Your task to perform on an android device: Go to calendar. Show me events next week Image 0: 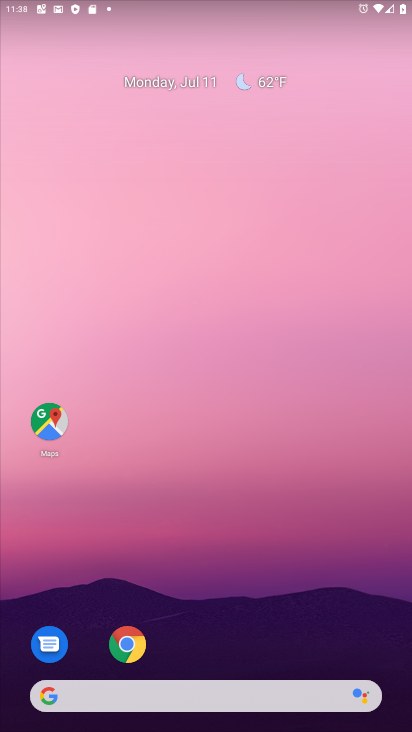
Step 0: drag from (232, 685) to (194, 46)
Your task to perform on an android device: Go to calendar. Show me events next week Image 1: 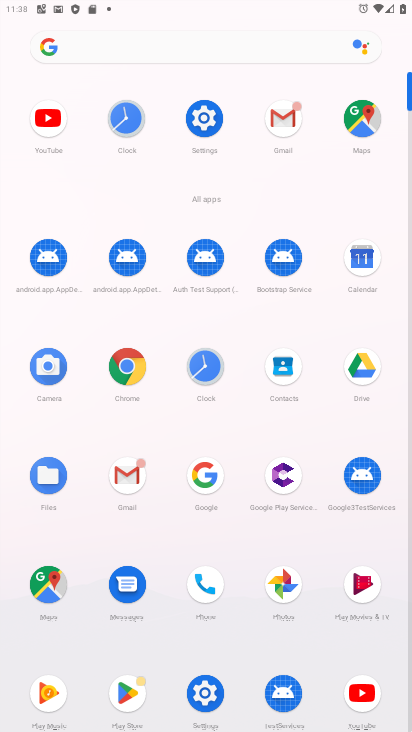
Step 1: click (375, 267)
Your task to perform on an android device: Go to calendar. Show me events next week Image 2: 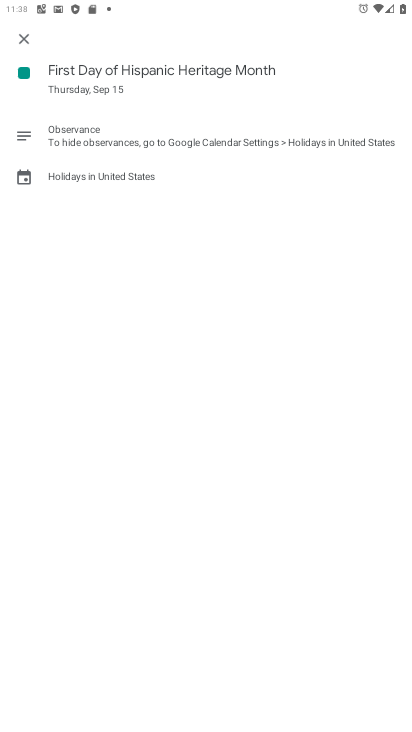
Step 2: click (20, 29)
Your task to perform on an android device: Go to calendar. Show me events next week Image 3: 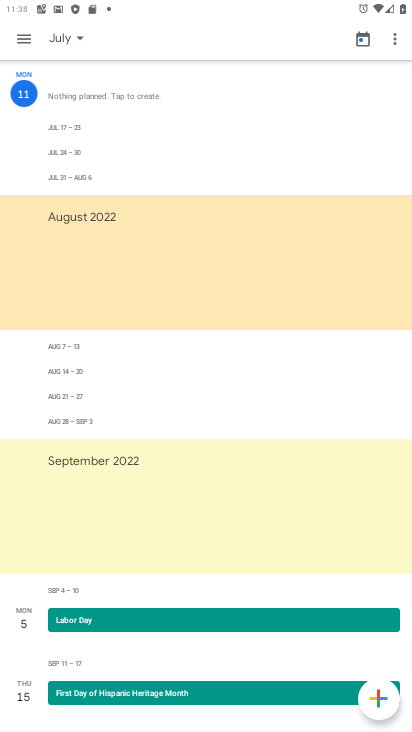
Step 3: click (18, 30)
Your task to perform on an android device: Go to calendar. Show me events next week Image 4: 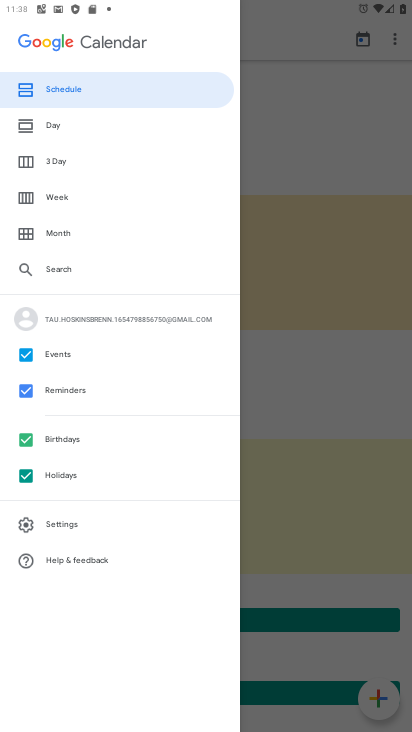
Step 4: click (67, 205)
Your task to perform on an android device: Go to calendar. Show me events next week Image 5: 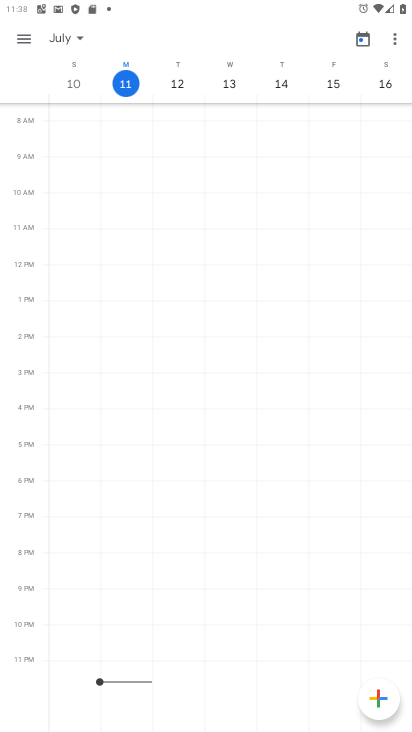
Step 5: task complete